Your task to perform on an android device: change the clock style Image 0: 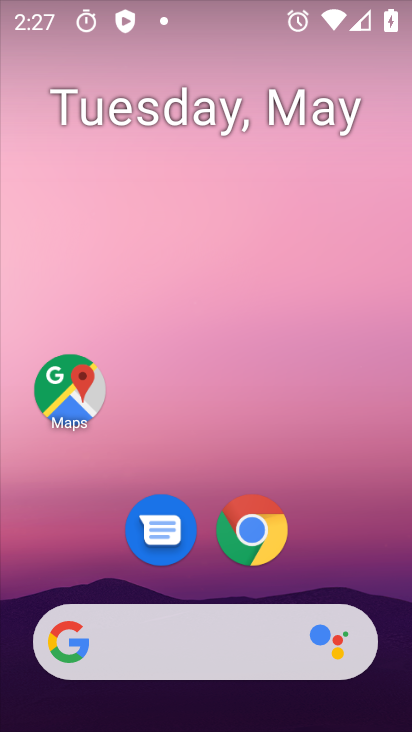
Step 0: drag from (191, 585) to (104, 5)
Your task to perform on an android device: change the clock style Image 1: 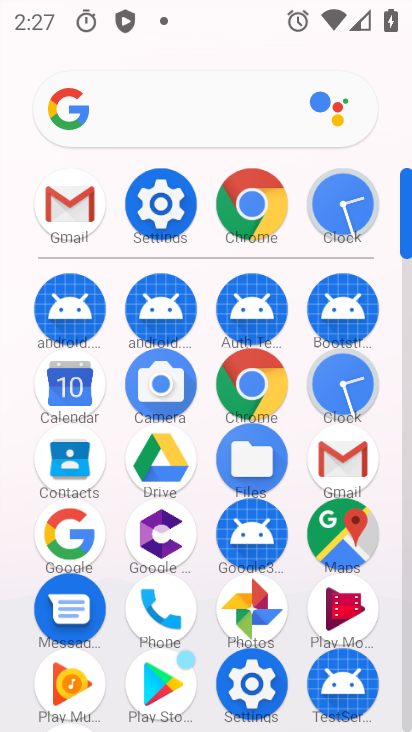
Step 1: click (335, 221)
Your task to perform on an android device: change the clock style Image 2: 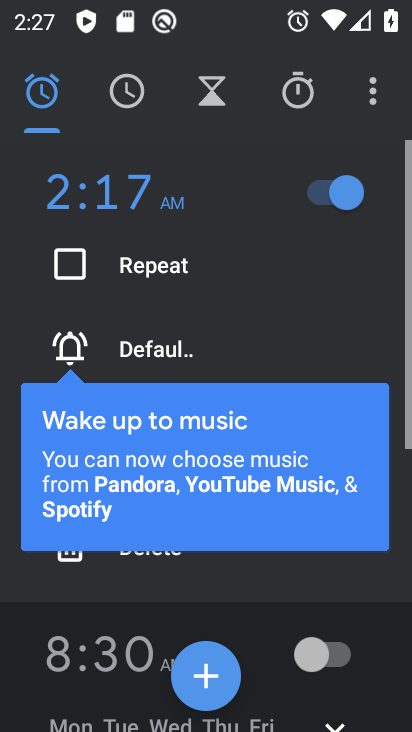
Step 2: click (368, 77)
Your task to perform on an android device: change the clock style Image 3: 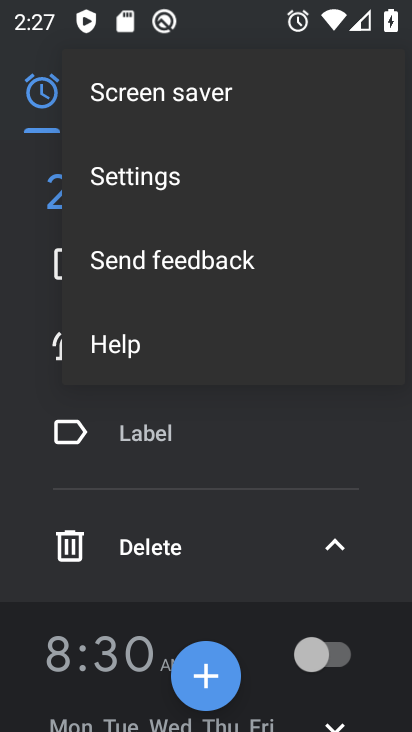
Step 3: click (122, 190)
Your task to perform on an android device: change the clock style Image 4: 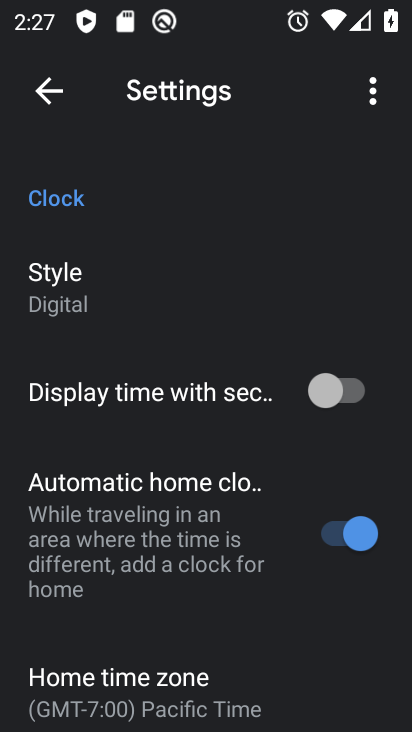
Step 4: click (51, 282)
Your task to perform on an android device: change the clock style Image 5: 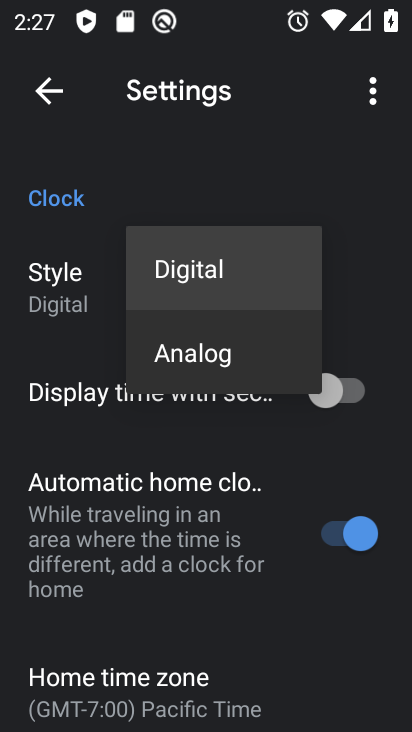
Step 5: click (191, 346)
Your task to perform on an android device: change the clock style Image 6: 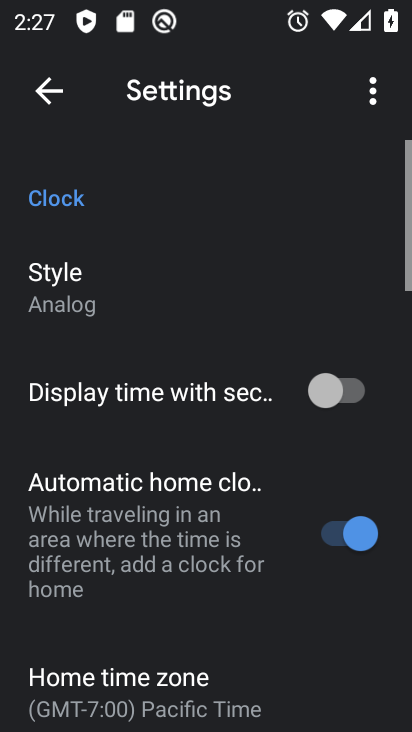
Step 6: task complete